Your task to perform on an android device: Open the calendar and show me this week's events? Image 0: 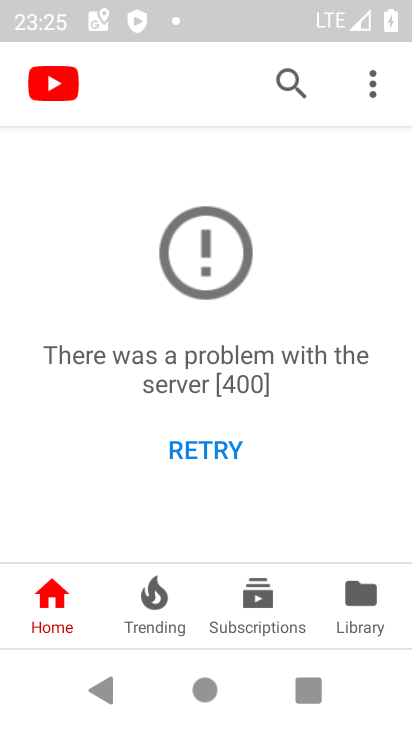
Step 0: press home button
Your task to perform on an android device: Open the calendar and show me this week's events? Image 1: 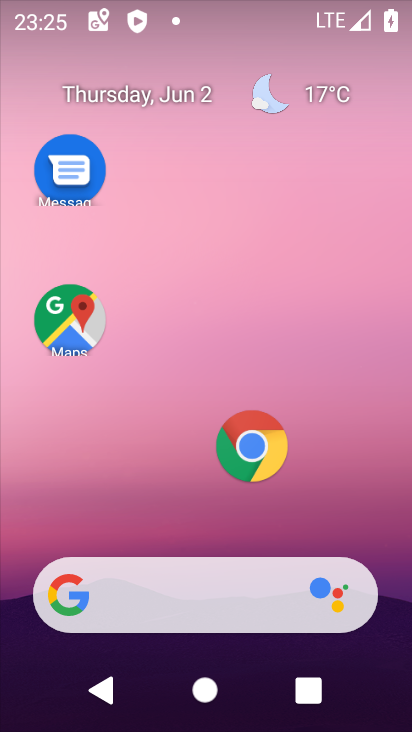
Step 1: drag from (284, 563) to (253, 194)
Your task to perform on an android device: Open the calendar and show me this week's events? Image 2: 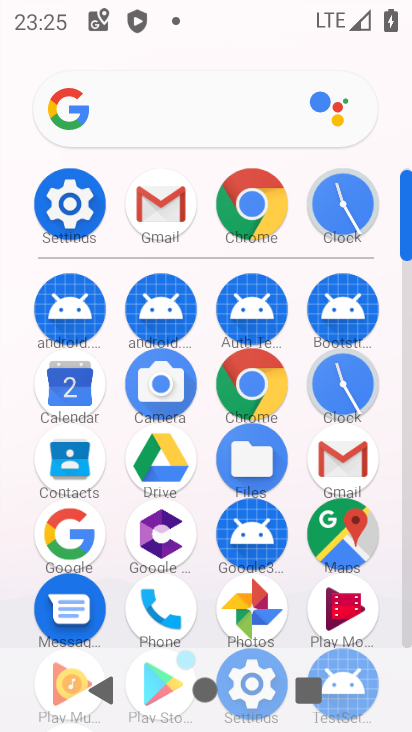
Step 2: click (66, 396)
Your task to perform on an android device: Open the calendar and show me this week's events? Image 3: 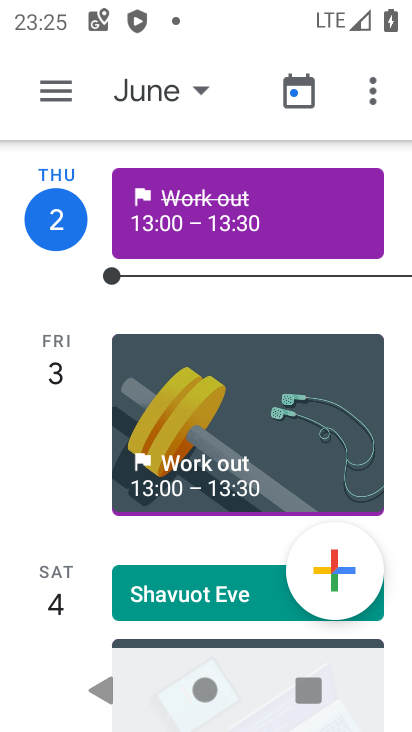
Step 3: click (158, 96)
Your task to perform on an android device: Open the calendar and show me this week's events? Image 4: 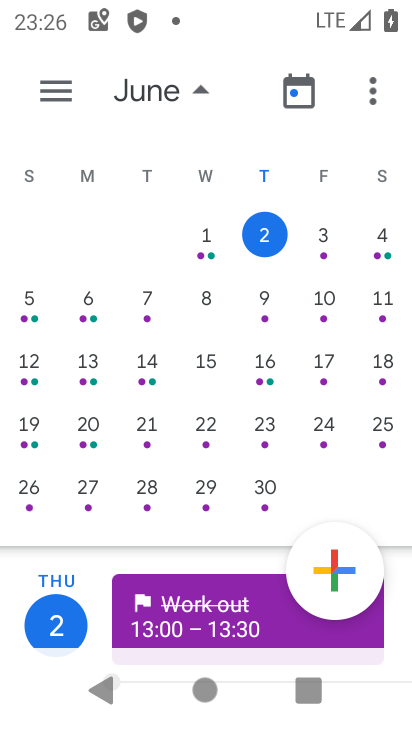
Step 4: press home button
Your task to perform on an android device: Open the calendar and show me this week's events? Image 5: 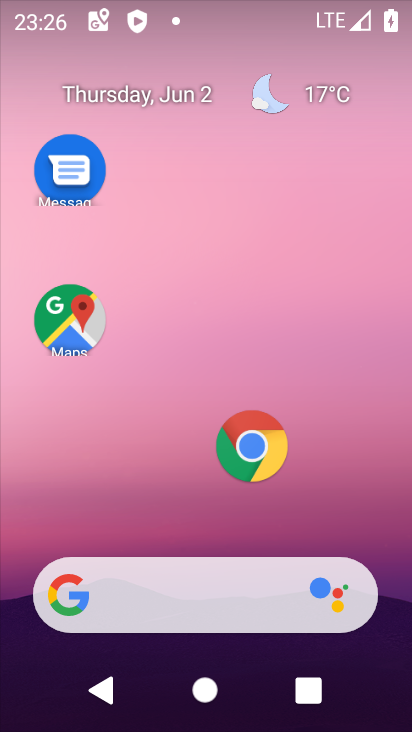
Step 5: drag from (349, 511) to (328, 106)
Your task to perform on an android device: Open the calendar and show me this week's events? Image 6: 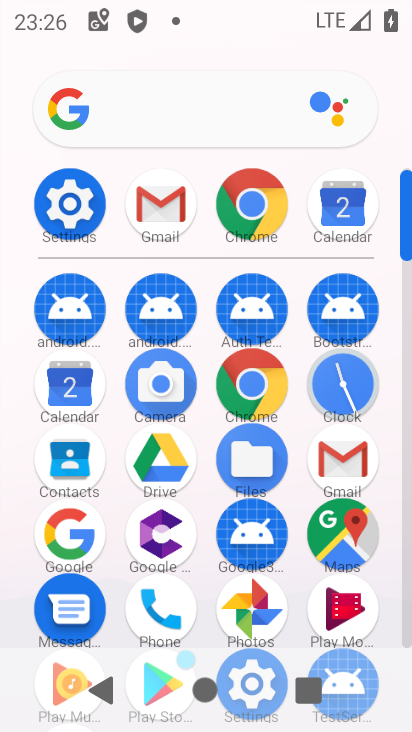
Step 6: click (357, 166)
Your task to perform on an android device: Open the calendar and show me this week's events? Image 7: 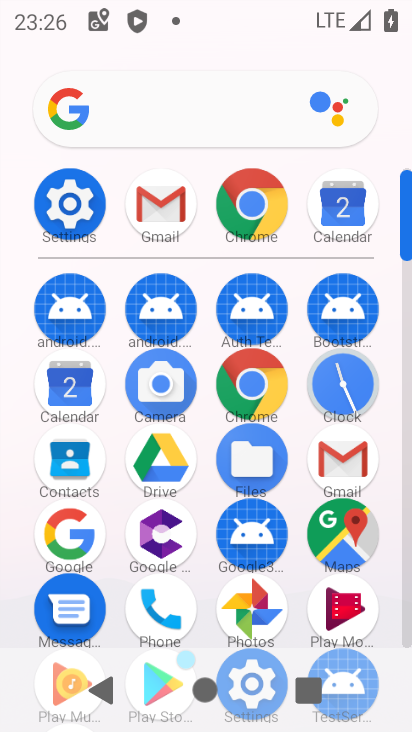
Step 7: click (340, 199)
Your task to perform on an android device: Open the calendar and show me this week's events? Image 8: 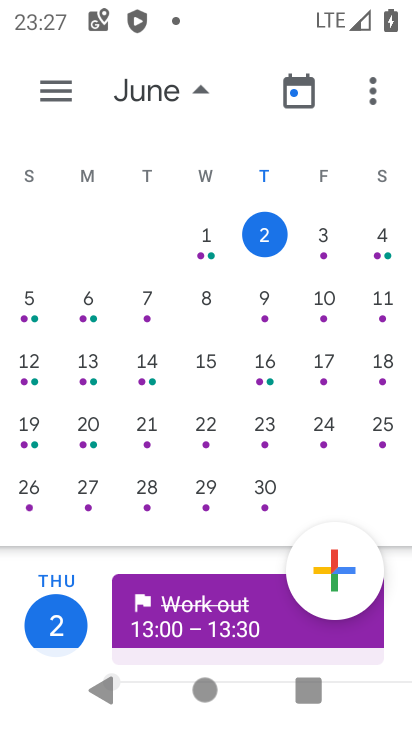
Step 8: click (96, 302)
Your task to perform on an android device: Open the calendar and show me this week's events? Image 9: 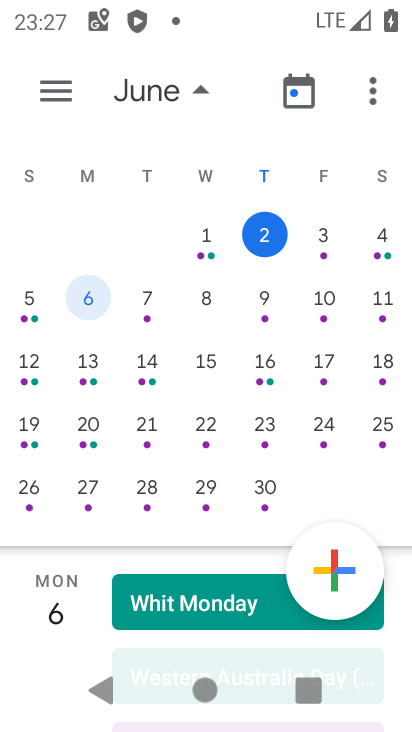
Step 9: click (202, 101)
Your task to perform on an android device: Open the calendar and show me this week's events? Image 10: 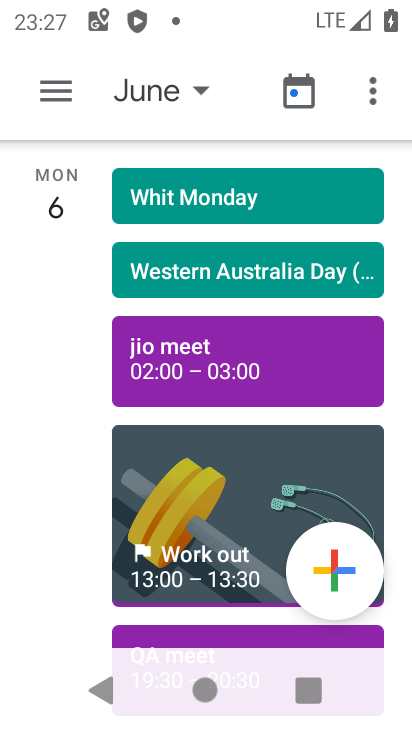
Step 10: task complete